Your task to perform on an android device: turn on bluetooth scan Image 0: 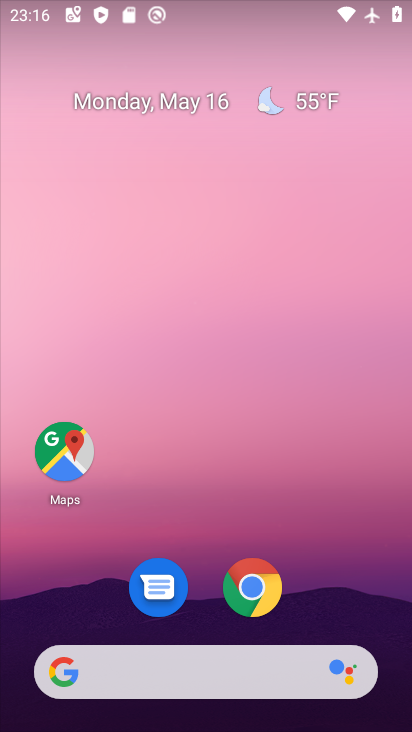
Step 0: drag from (342, 575) to (261, 22)
Your task to perform on an android device: turn on bluetooth scan Image 1: 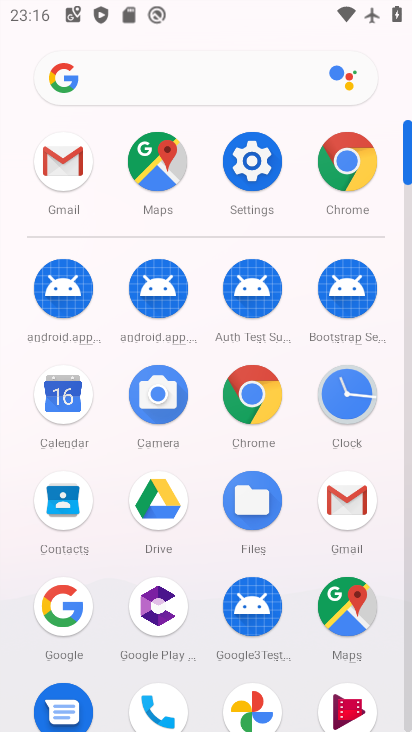
Step 1: drag from (4, 581) to (14, 257)
Your task to perform on an android device: turn on bluetooth scan Image 2: 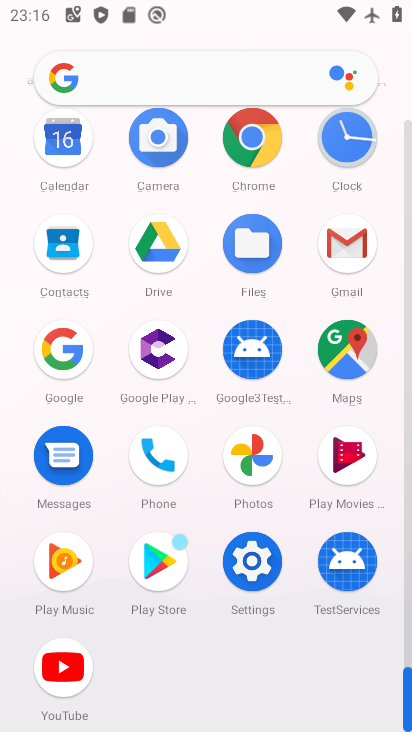
Step 2: click (255, 555)
Your task to perform on an android device: turn on bluetooth scan Image 3: 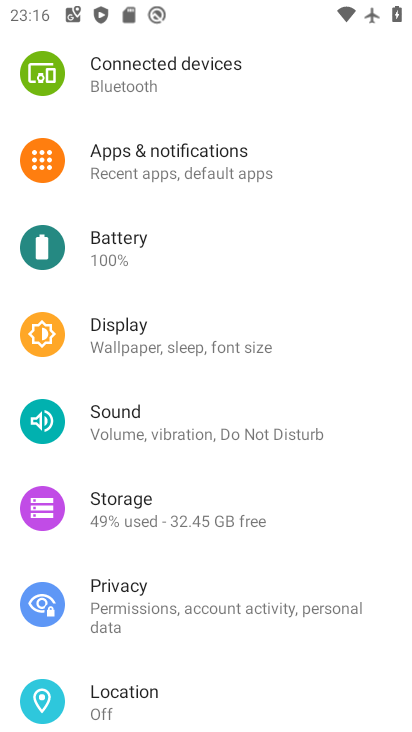
Step 3: click (178, 684)
Your task to perform on an android device: turn on bluetooth scan Image 4: 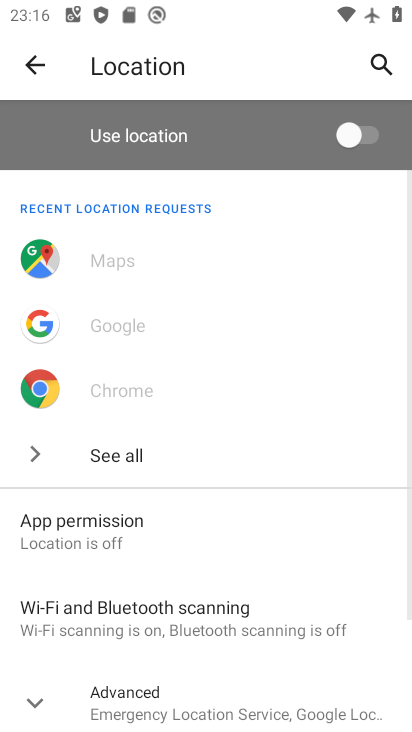
Step 4: click (183, 626)
Your task to perform on an android device: turn on bluetooth scan Image 5: 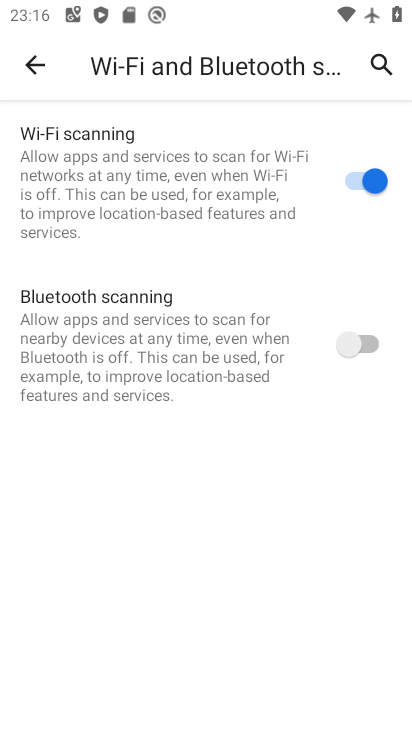
Step 5: click (366, 344)
Your task to perform on an android device: turn on bluetooth scan Image 6: 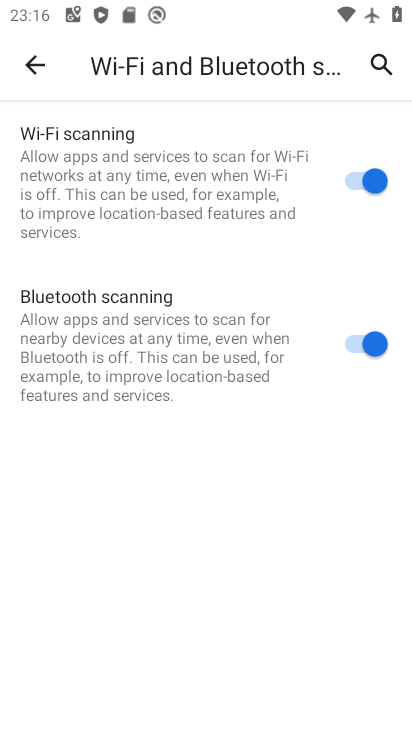
Step 6: task complete